Your task to perform on an android device: allow notifications from all sites in the chrome app Image 0: 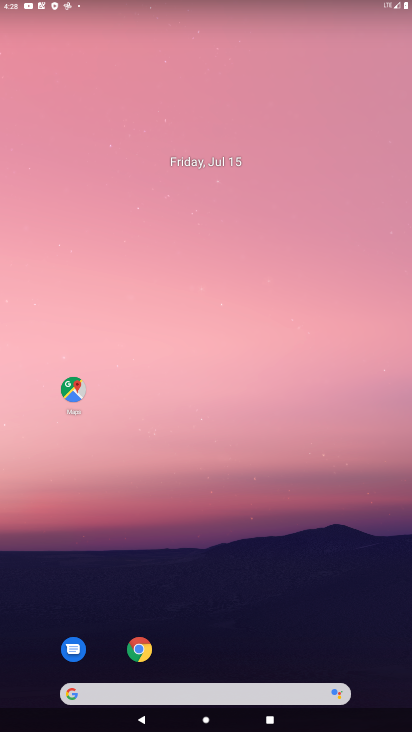
Step 0: drag from (327, 627) to (295, 176)
Your task to perform on an android device: allow notifications from all sites in the chrome app Image 1: 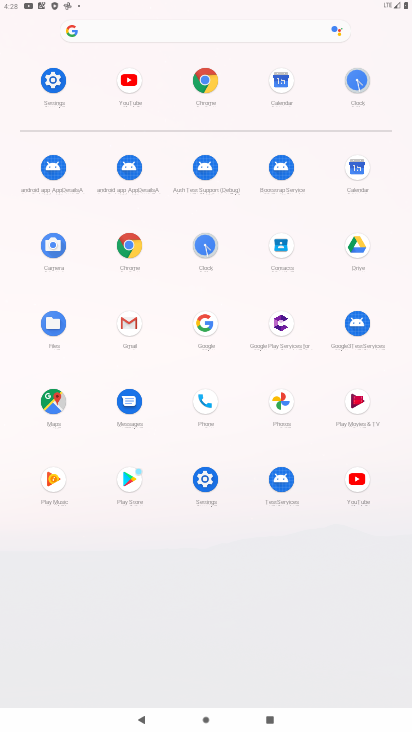
Step 1: click (204, 84)
Your task to perform on an android device: allow notifications from all sites in the chrome app Image 2: 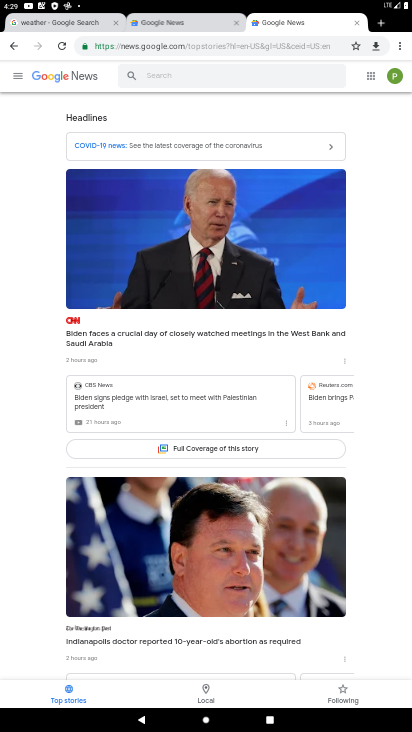
Step 2: drag from (402, 52) to (310, 312)
Your task to perform on an android device: allow notifications from all sites in the chrome app Image 3: 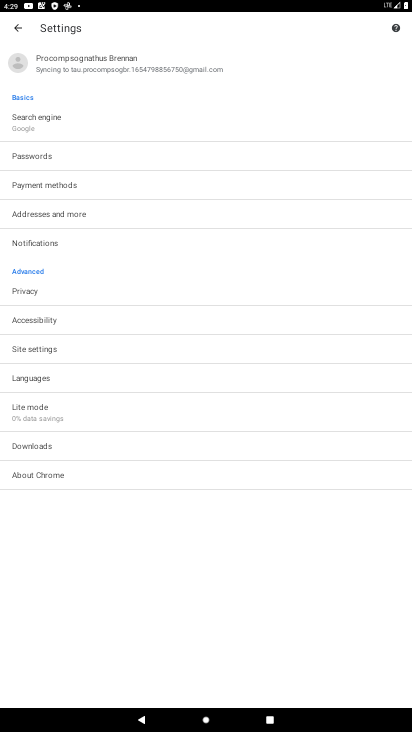
Step 3: click (51, 244)
Your task to perform on an android device: allow notifications from all sites in the chrome app Image 4: 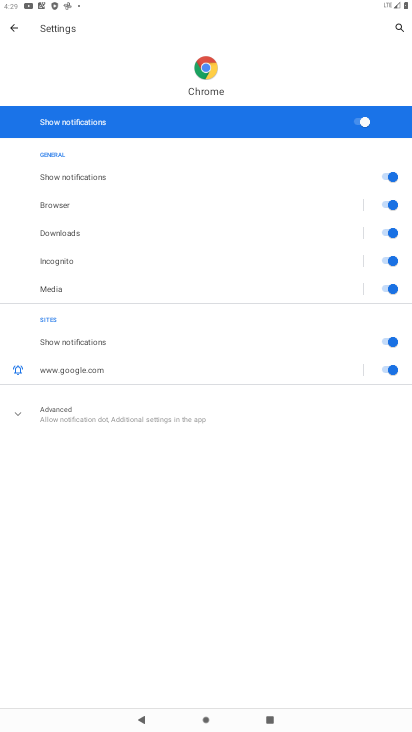
Step 4: task complete